Your task to perform on an android device: toggle wifi Image 0: 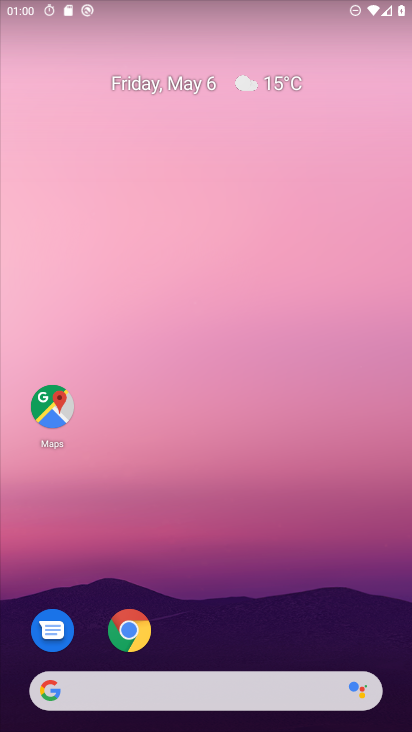
Step 0: drag from (246, 570) to (300, 3)
Your task to perform on an android device: toggle wifi Image 1: 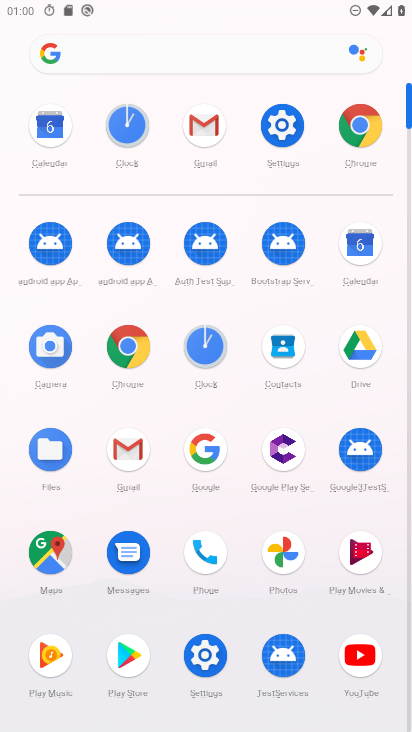
Step 1: click (284, 118)
Your task to perform on an android device: toggle wifi Image 2: 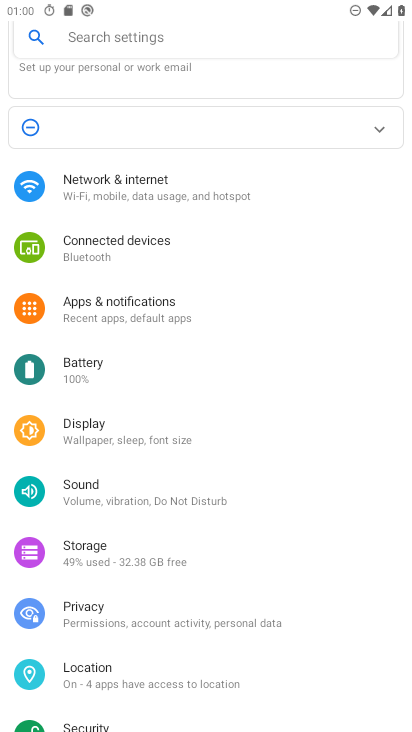
Step 2: click (123, 185)
Your task to perform on an android device: toggle wifi Image 3: 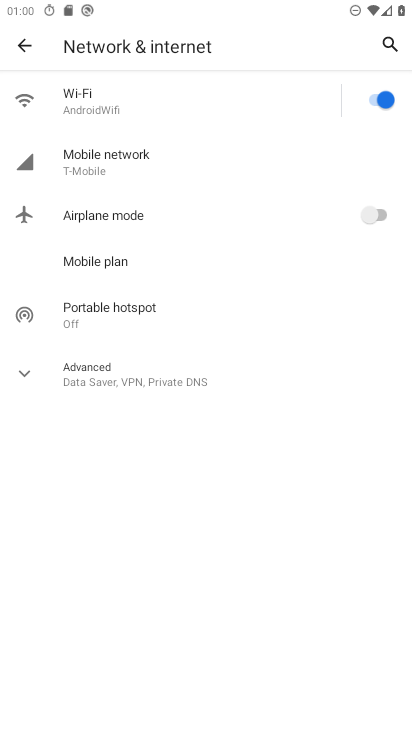
Step 3: click (374, 99)
Your task to perform on an android device: toggle wifi Image 4: 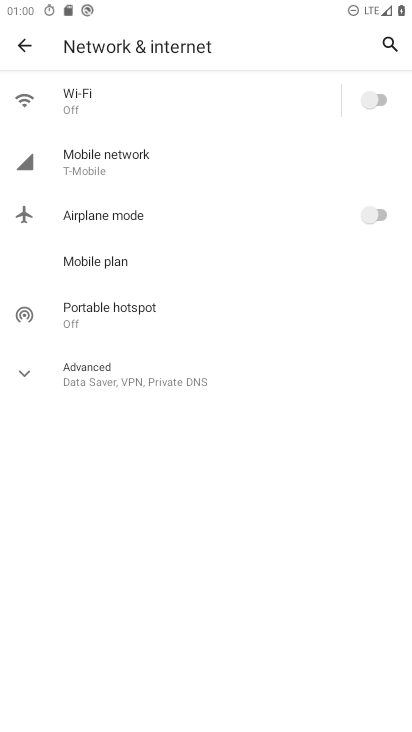
Step 4: task complete